Your task to perform on an android device: Search for seafood restaurants on Google Maps Image 0: 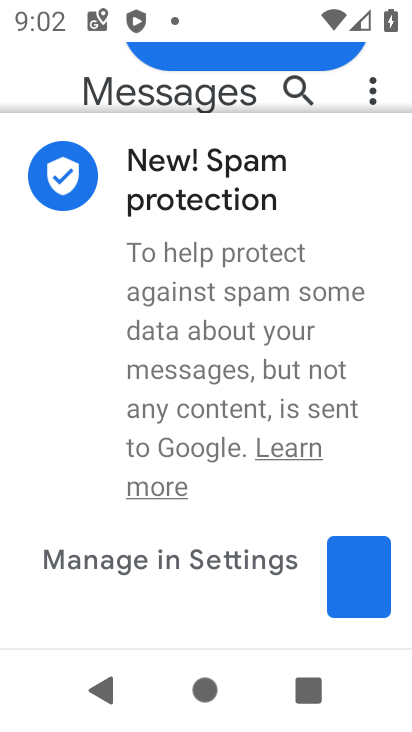
Step 0: press home button
Your task to perform on an android device: Search for seafood restaurants on Google Maps Image 1: 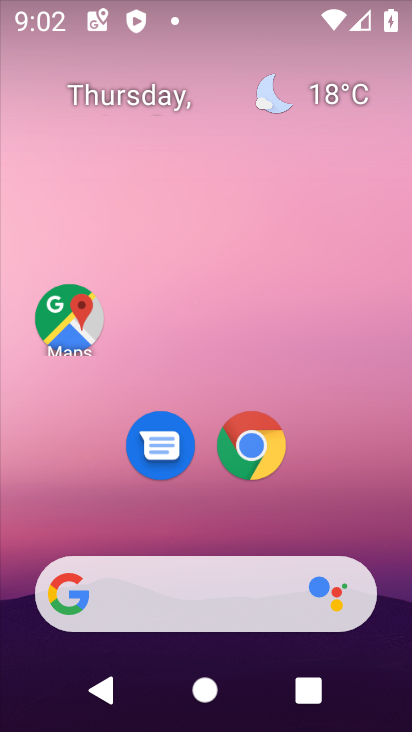
Step 1: click (80, 332)
Your task to perform on an android device: Search for seafood restaurants on Google Maps Image 2: 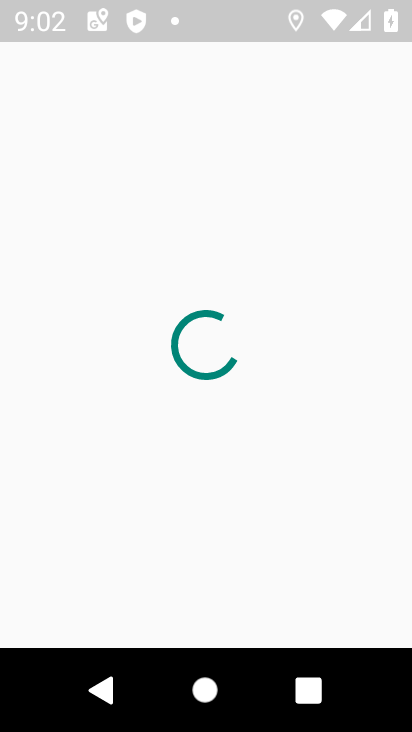
Step 2: click (272, 98)
Your task to perform on an android device: Search for seafood restaurants on Google Maps Image 3: 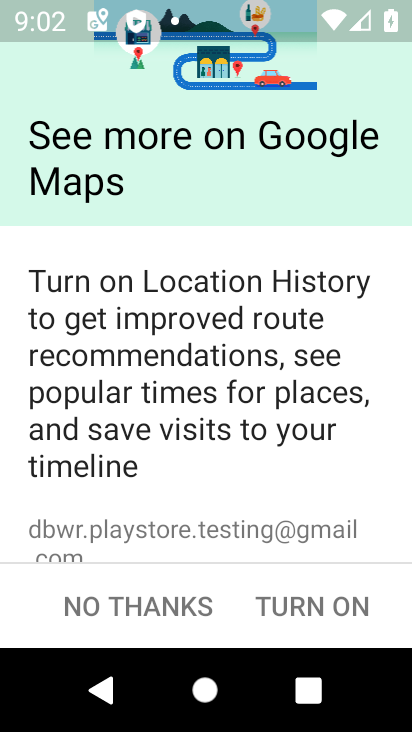
Step 3: click (144, 601)
Your task to perform on an android device: Search for seafood restaurants on Google Maps Image 4: 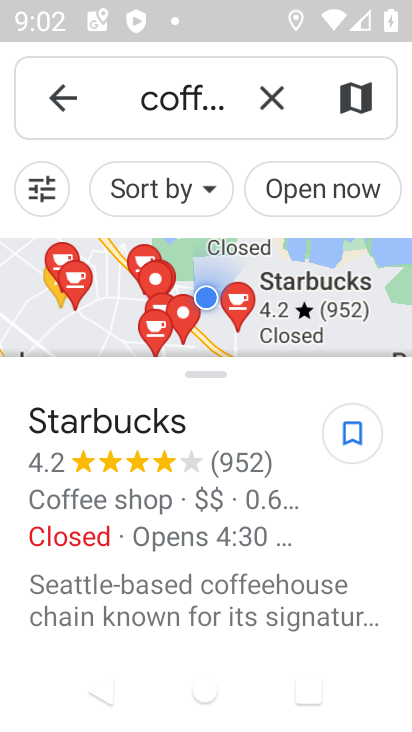
Step 4: click (275, 90)
Your task to perform on an android device: Search for seafood restaurants on Google Maps Image 5: 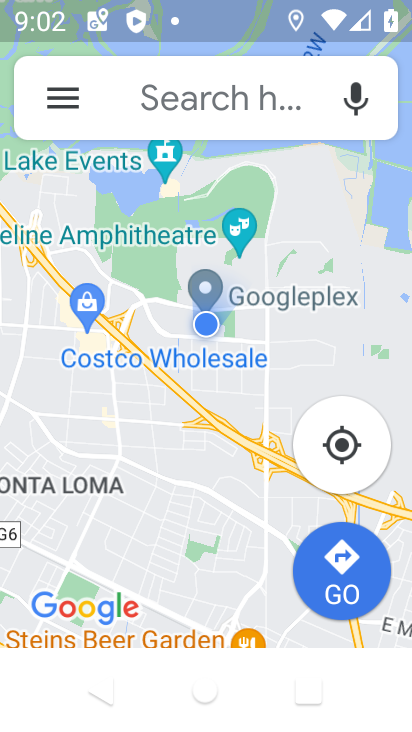
Step 5: click (209, 97)
Your task to perform on an android device: Search for seafood restaurants on Google Maps Image 6: 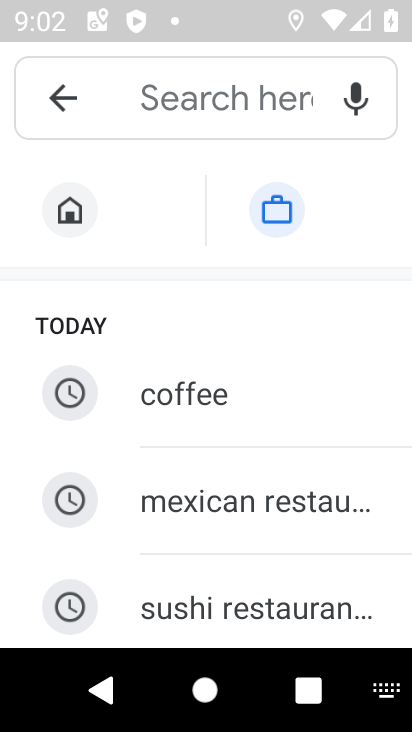
Step 6: type "seafood restaurants"
Your task to perform on an android device: Search for seafood restaurants on Google Maps Image 7: 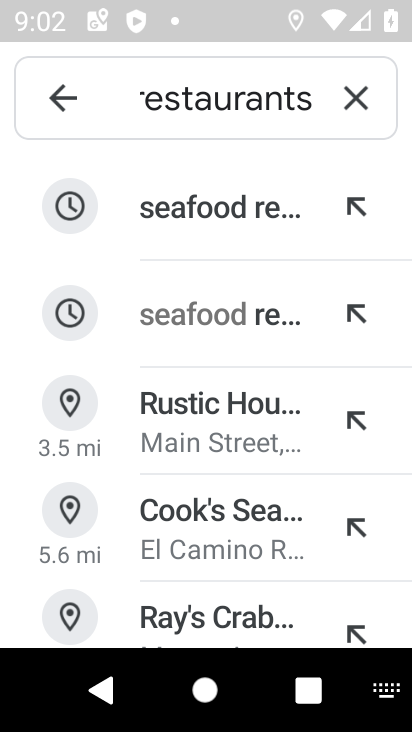
Step 7: click (244, 222)
Your task to perform on an android device: Search for seafood restaurants on Google Maps Image 8: 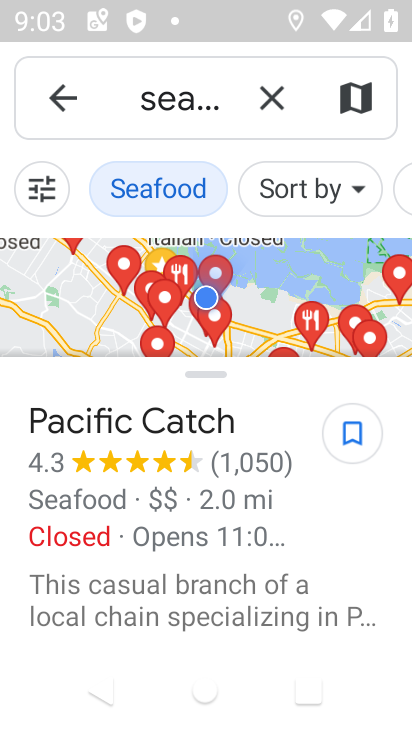
Step 8: task complete